Your task to perform on an android device: turn on location history Image 0: 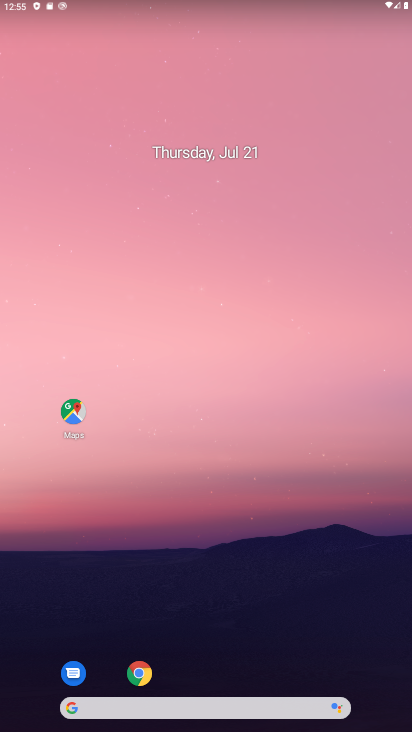
Step 0: click (161, 158)
Your task to perform on an android device: turn on location history Image 1: 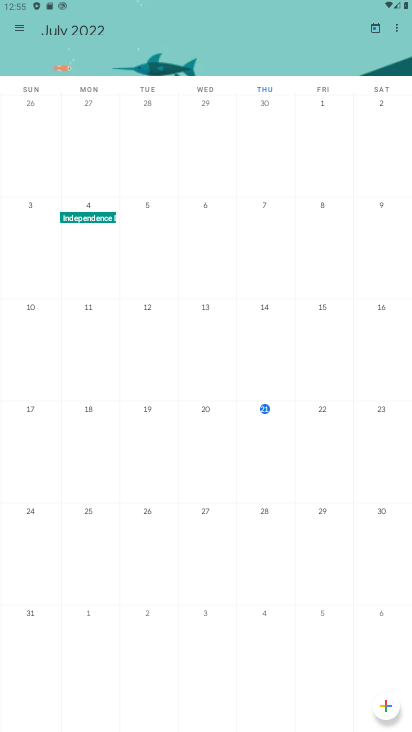
Step 1: press home button
Your task to perform on an android device: turn on location history Image 2: 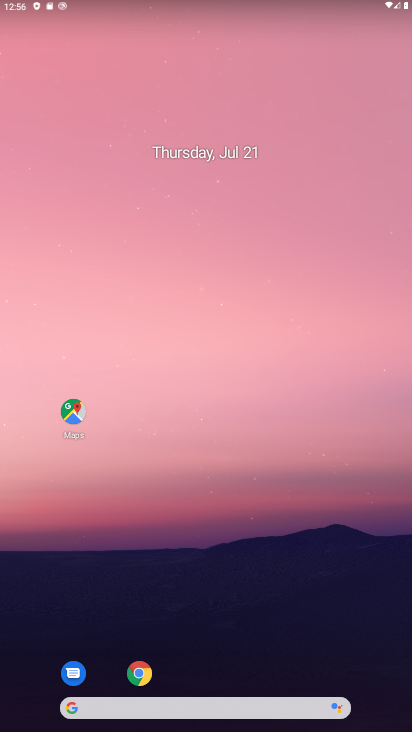
Step 2: drag from (207, 704) to (168, 175)
Your task to perform on an android device: turn on location history Image 3: 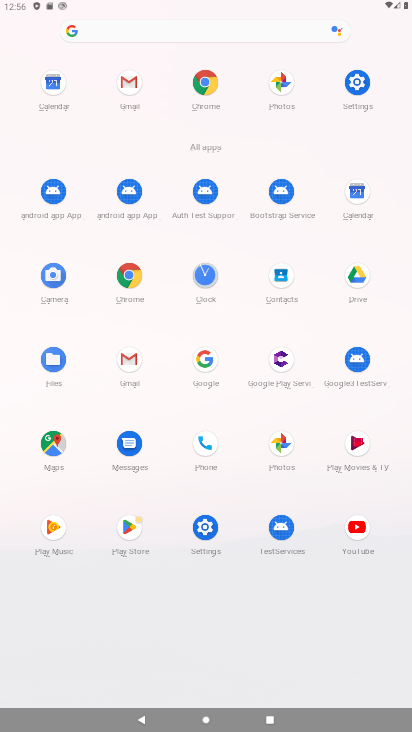
Step 3: click (362, 79)
Your task to perform on an android device: turn on location history Image 4: 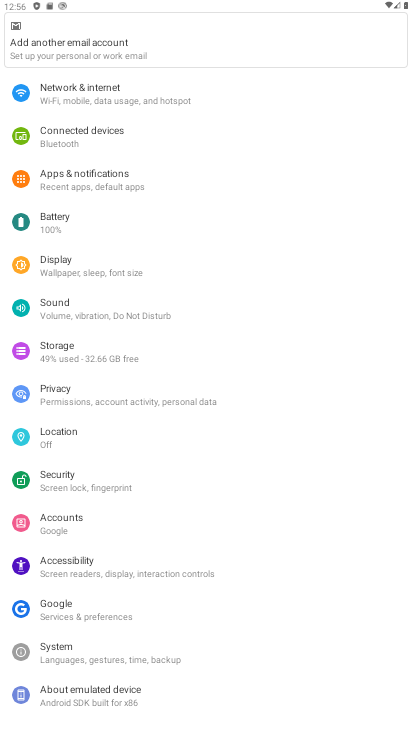
Step 4: click (81, 442)
Your task to perform on an android device: turn on location history Image 5: 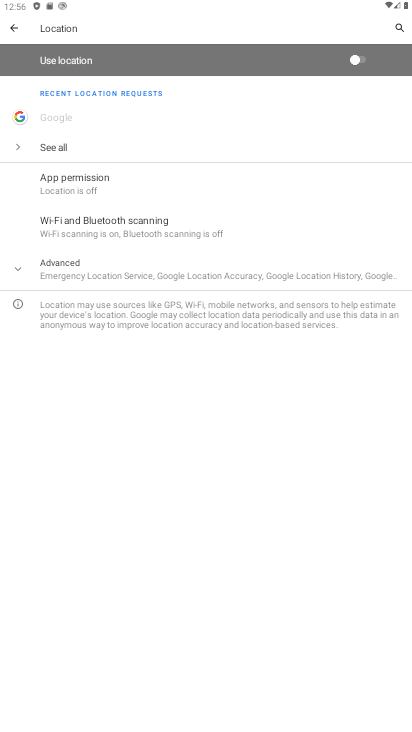
Step 5: click (107, 281)
Your task to perform on an android device: turn on location history Image 6: 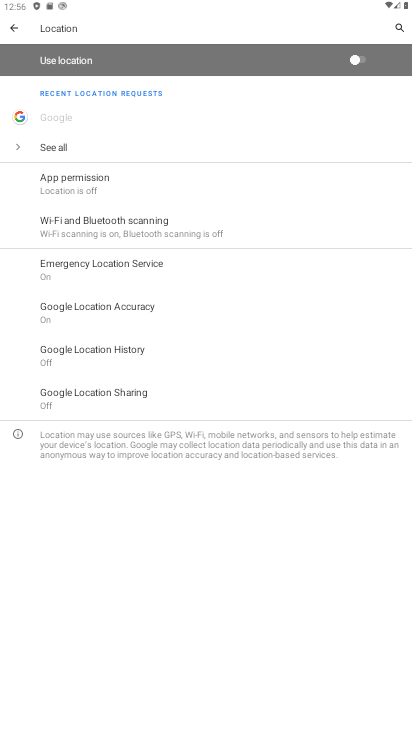
Step 6: click (131, 350)
Your task to perform on an android device: turn on location history Image 7: 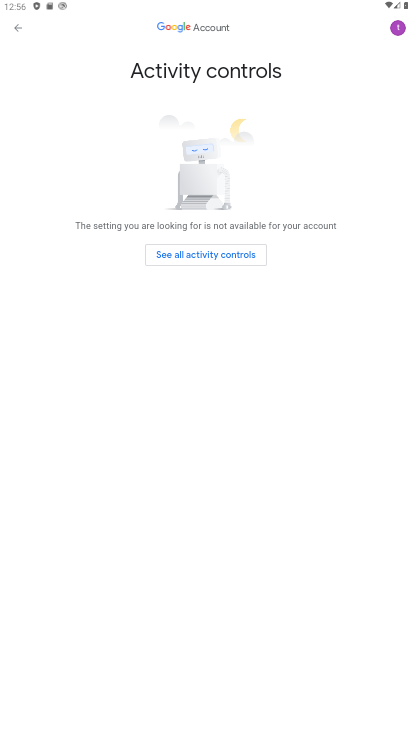
Step 7: task complete